Your task to perform on an android device: uninstall "Facebook" Image 0: 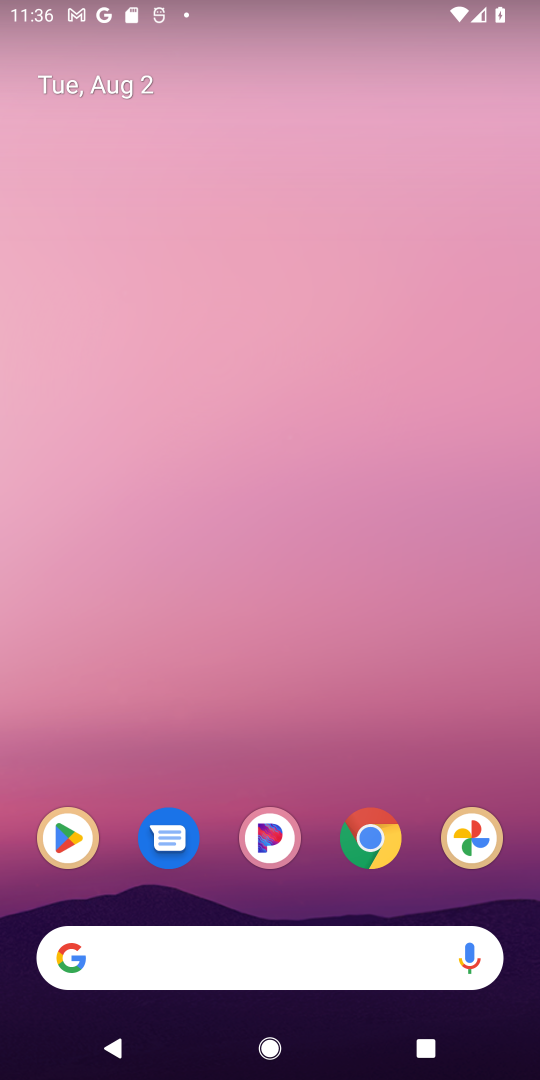
Step 0: click (79, 864)
Your task to perform on an android device: uninstall "Facebook" Image 1: 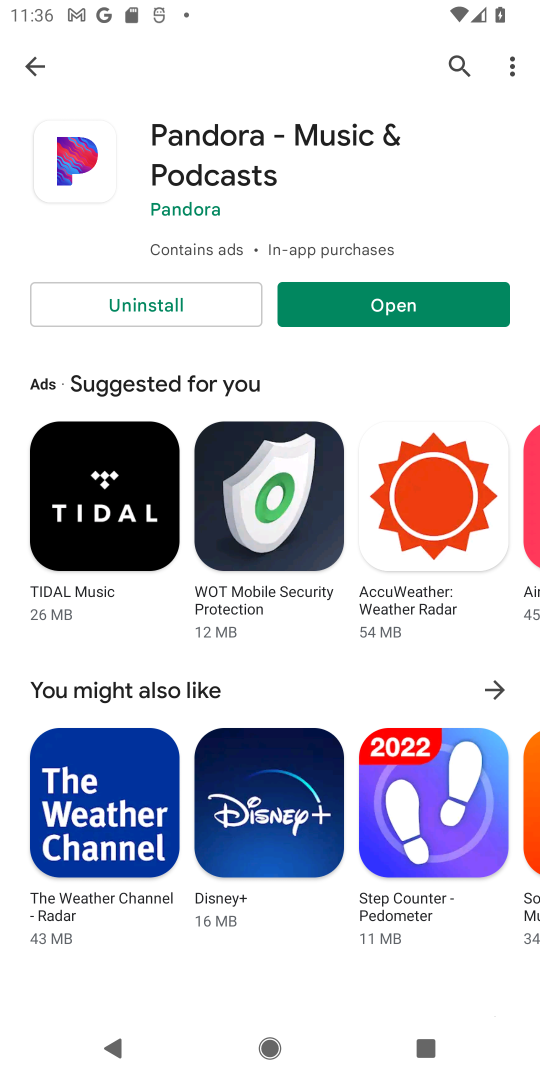
Step 1: click (464, 62)
Your task to perform on an android device: uninstall "Facebook" Image 2: 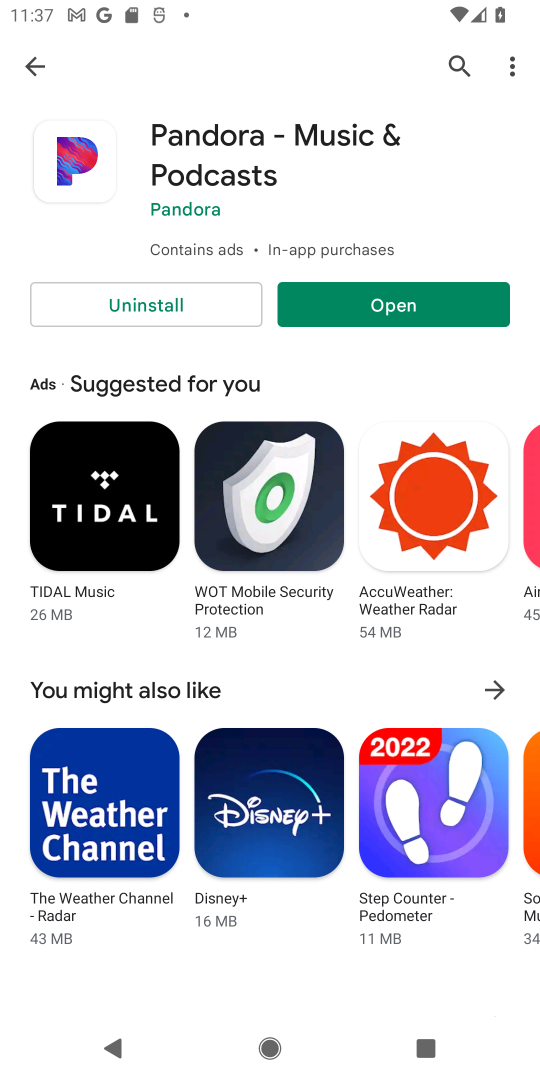
Step 2: click (449, 98)
Your task to perform on an android device: uninstall "Facebook" Image 3: 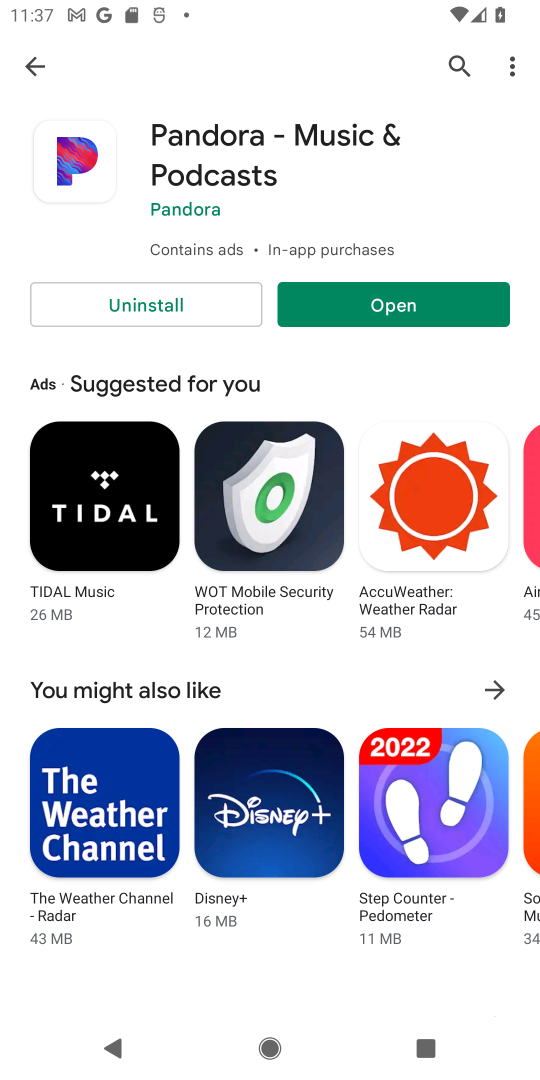
Step 3: click (456, 69)
Your task to perform on an android device: uninstall "Facebook" Image 4: 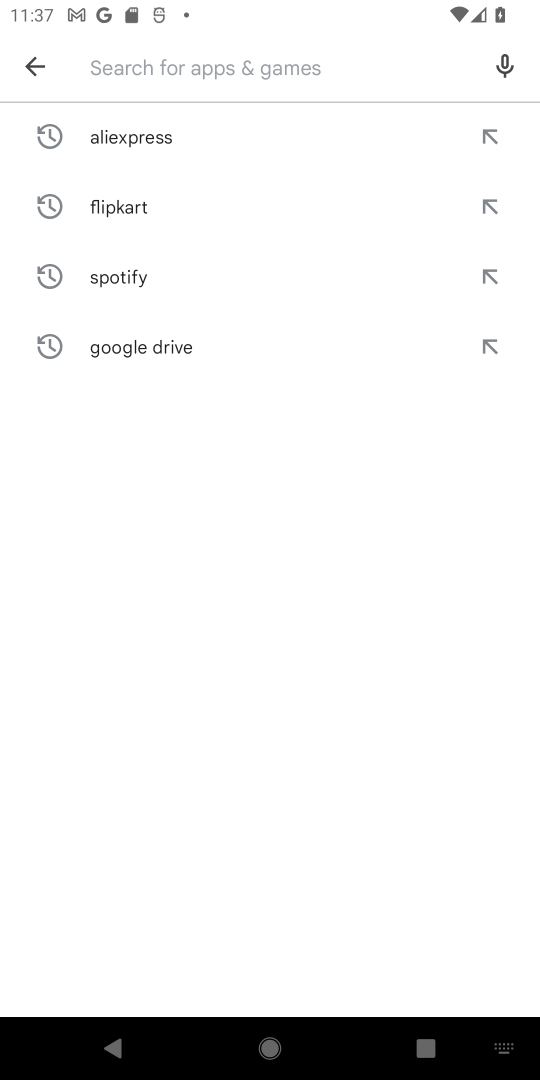
Step 4: type "facebook"
Your task to perform on an android device: uninstall "Facebook" Image 5: 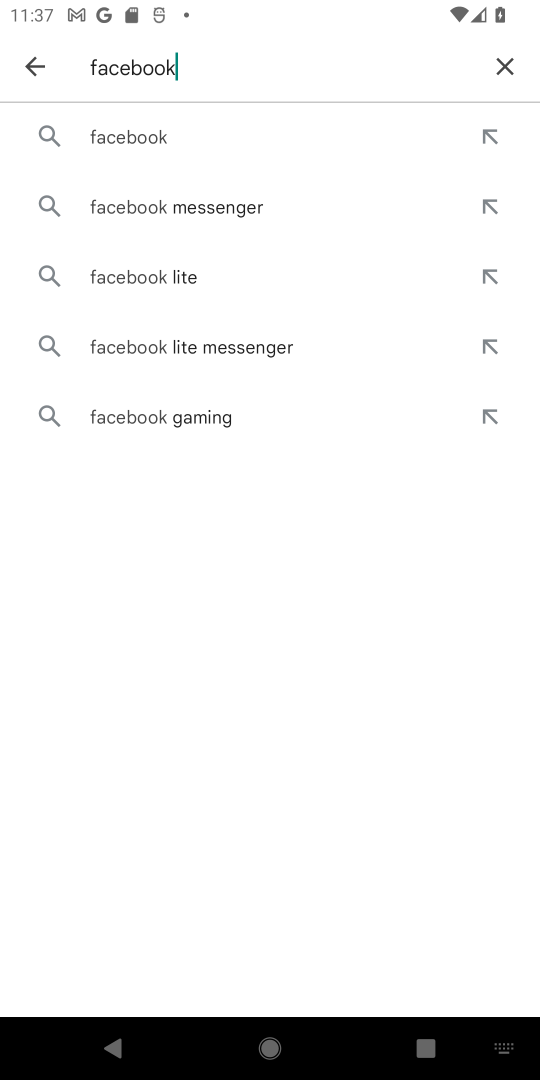
Step 5: click (153, 132)
Your task to perform on an android device: uninstall "Facebook" Image 6: 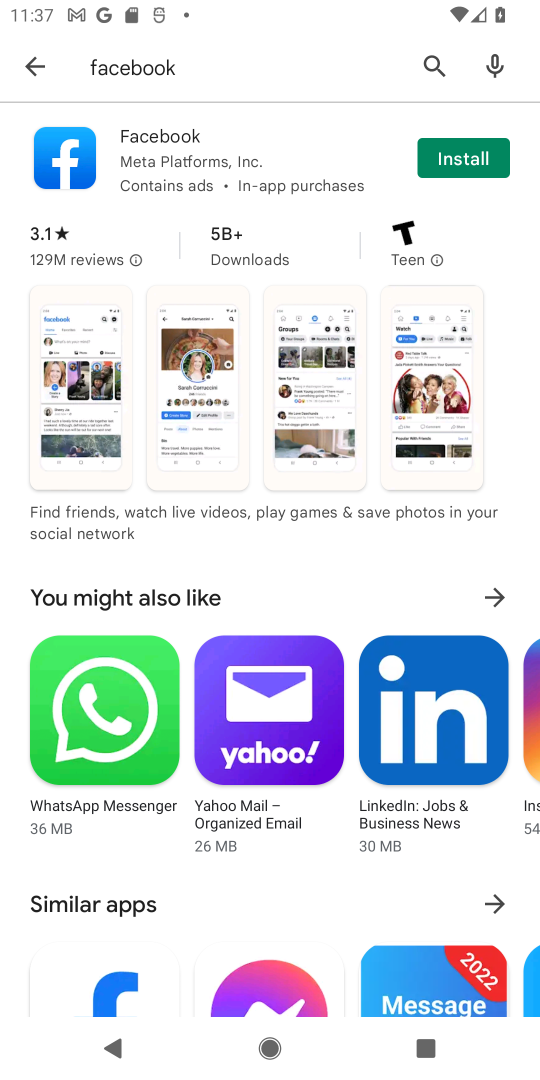
Step 6: task complete